Your task to perform on an android device: Open the phone app and click the voicemail tab. Image 0: 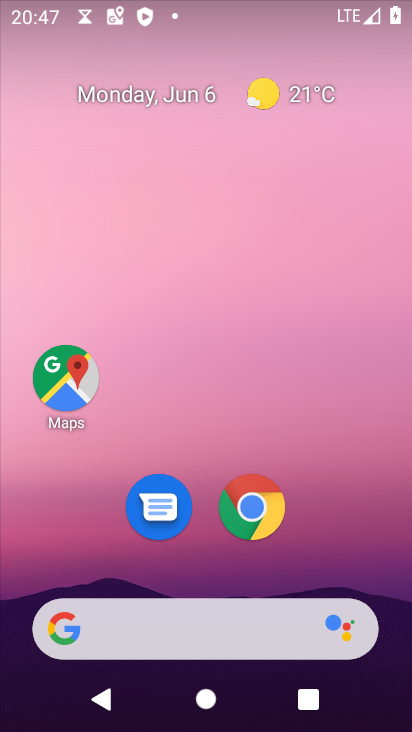
Step 0: drag from (227, 572) to (336, 5)
Your task to perform on an android device: Open the phone app and click the voicemail tab. Image 1: 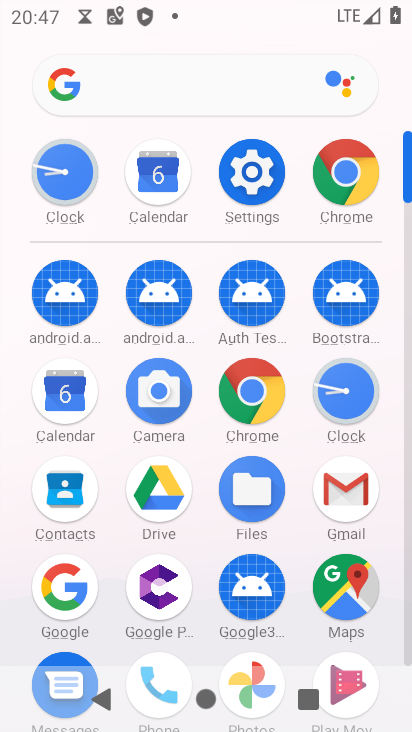
Step 1: drag from (286, 576) to (298, 201)
Your task to perform on an android device: Open the phone app and click the voicemail tab. Image 2: 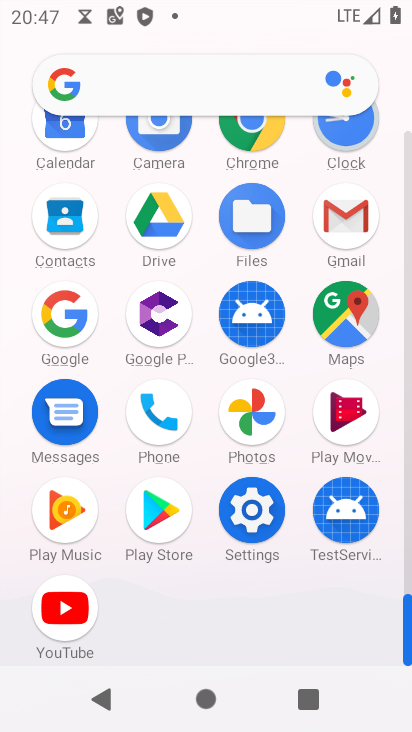
Step 2: click (142, 429)
Your task to perform on an android device: Open the phone app and click the voicemail tab. Image 3: 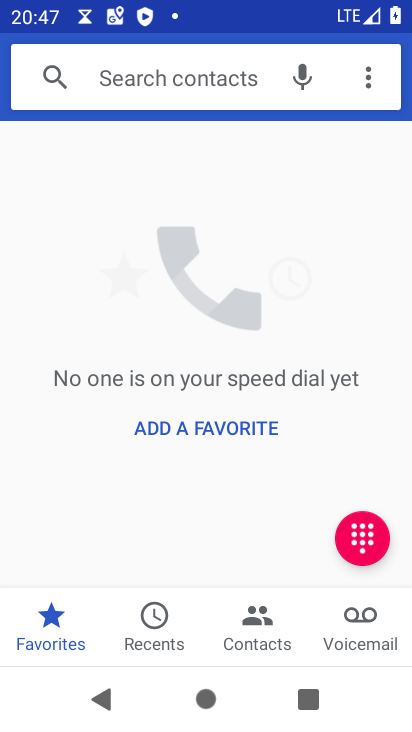
Step 3: click (359, 647)
Your task to perform on an android device: Open the phone app and click the voicemail tab. Image 4: 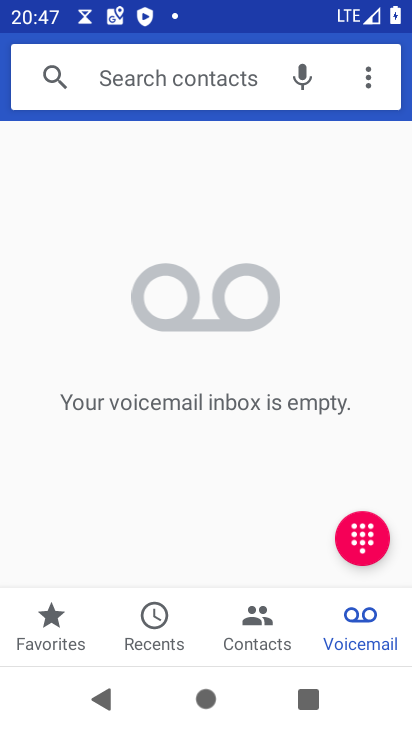
Step 4: task complete